Your task to perform on an android device: Go to display settings Image 0: 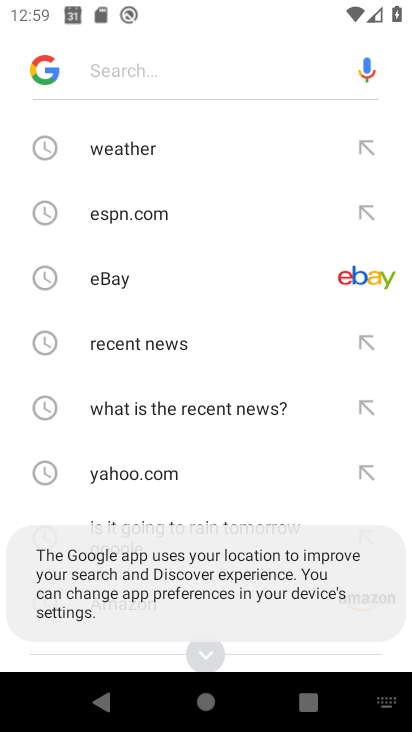
Step 0: press home button
Your task to perform on an android device: Go to display settings Image 1: 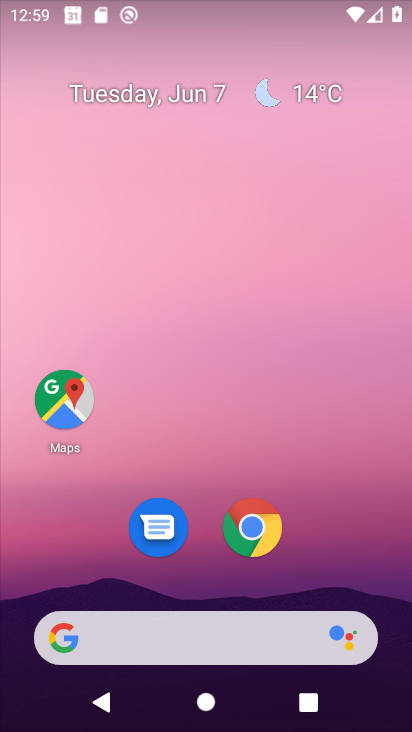
Step 1: drag from (315, 572) to (332, 19)
Your task to perform on an android device: Go to display settings Image 2: 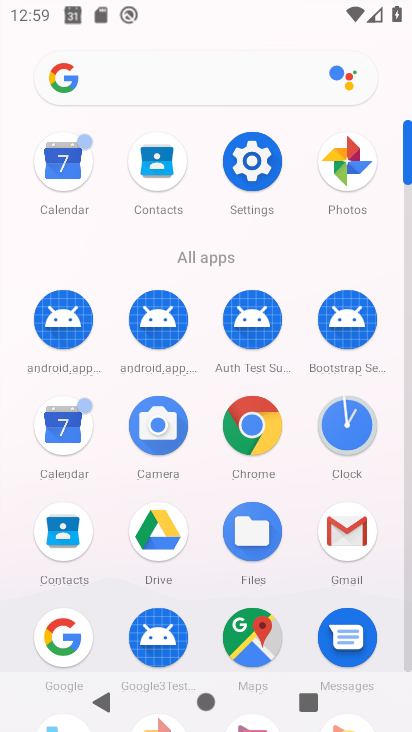
Step 2: click (245, 159)
Your task to perform on an android device: Go to display settings Image 3: 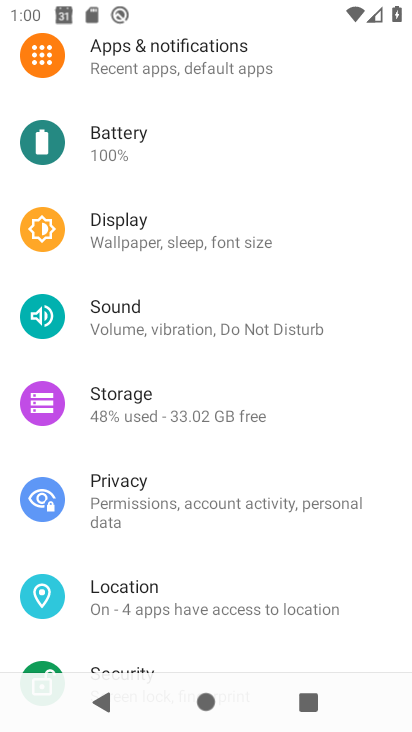
Step 3: click (148, 237)
Your task to perform on an android device: Go to display settings Image 4: 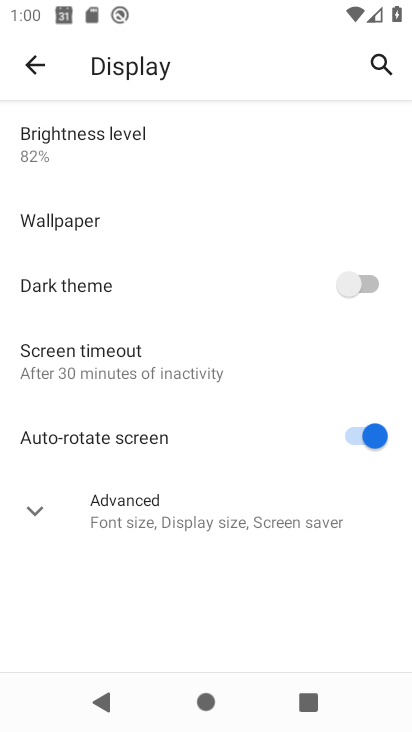
Step 4: task complete